Your task to perform on an android device: turn on notifications settings in the gmail app Image 0: 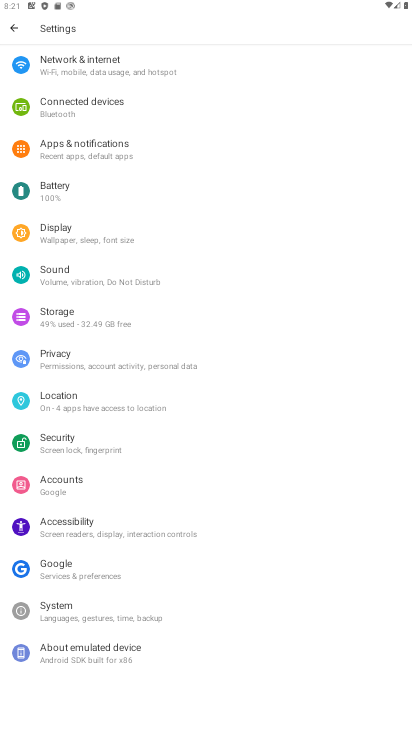
Step 0: press home button
Your task to perform on an android device: turn on notifications settings in the gmail app Image 1: 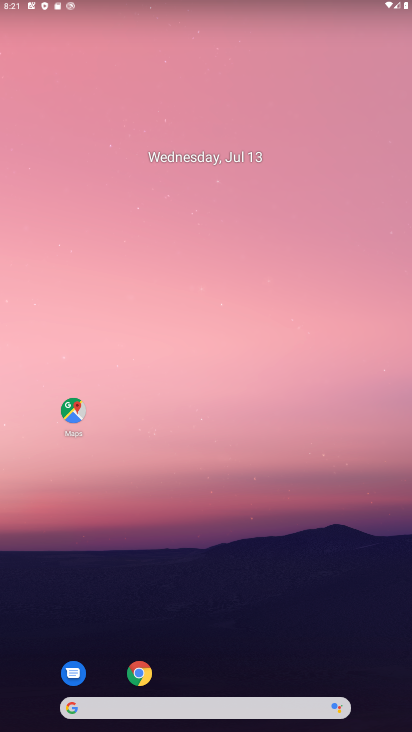
Step 1: drag from (264, 591) to (243, 92)
Your task to perform on an android device: turn on notifications settings in the gmail app Image 2: 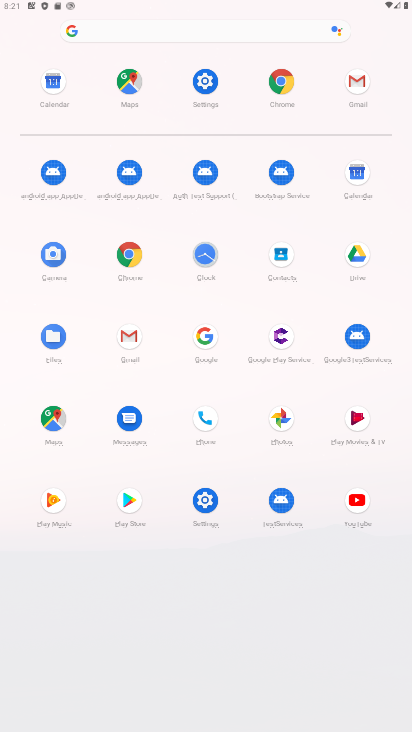
Step 2: click (359, 76)
Your task to perform on an android device: turn on notifications settings in the gmail app Image 3: 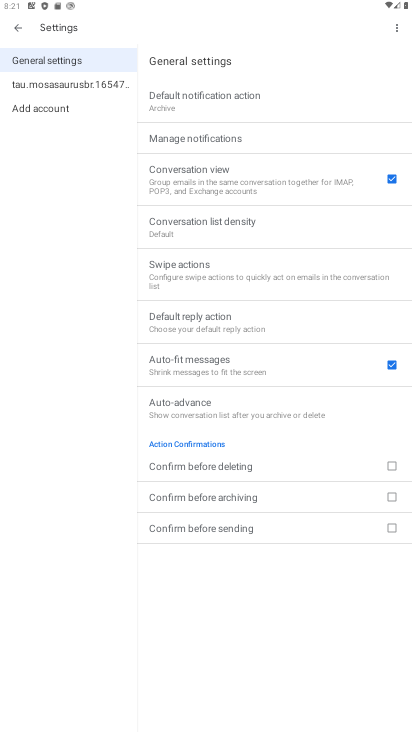
Step 3: click (95, 82)
Your task to perform on an android device: turn on notifications settings in the gmail app Image 4: 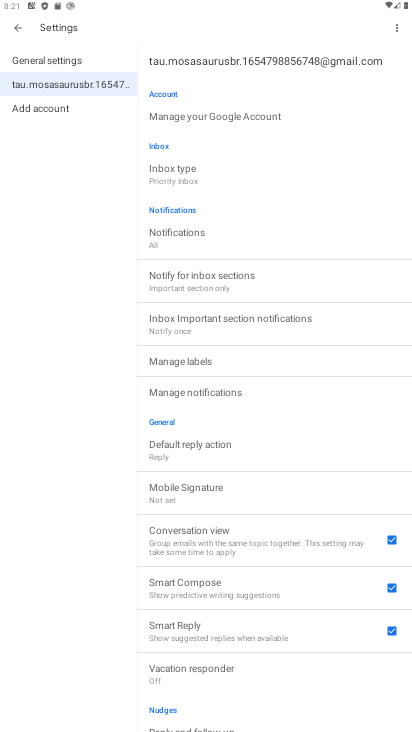
Step 4: click (209, 395)
Your task to perform on an android device: turn on notifications settings in the gmail app Image 5: 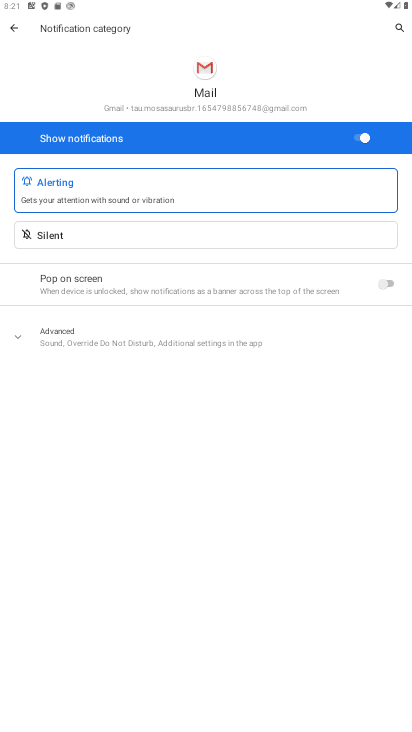
Step 5: task complete